Your task to perform on an android device: Open settings on Google Maps Image 0: 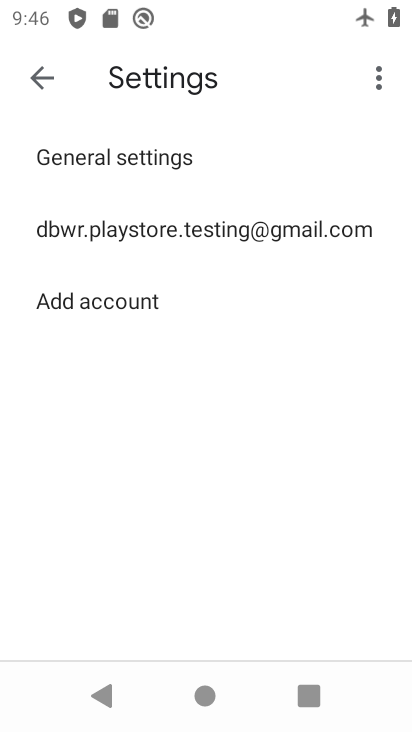
Step 0: press home button
Your task to perform on an android device: Open settings on Google Maps Image 1: 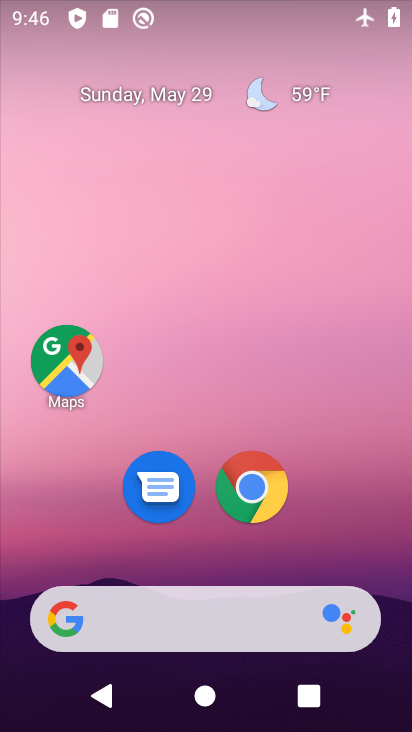
Step 1: click (36, 346)
Your task to perform on an android device: Open settings on Google Maps Image 2: 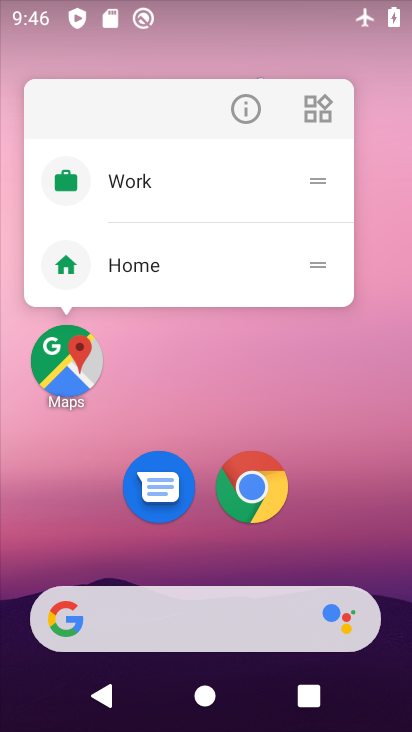
Step 2: click (50, 356)
Your task to perform on an android device: Open settings on Google Maps Image 3: 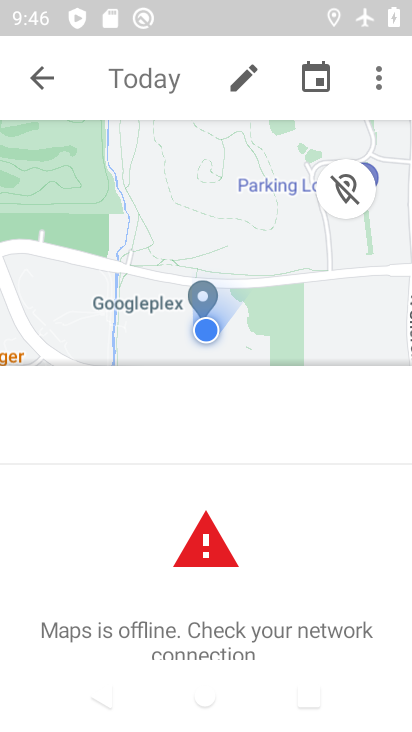
Step 3: task complete